Your task to perform on an android device: Open Reddit.com Image 0: 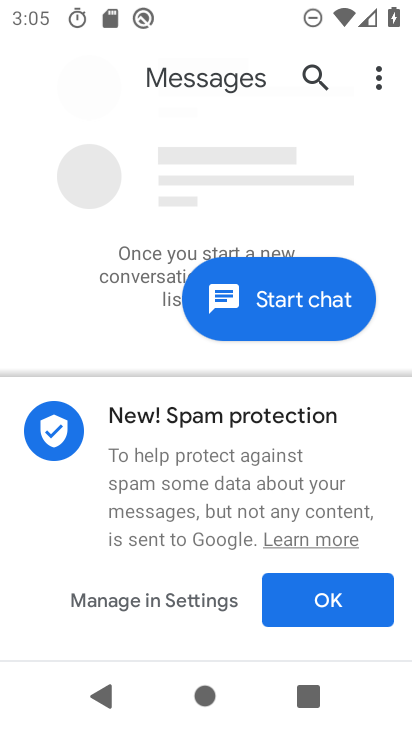
Step 0: press back button
Your task to perform on an android device: Open Reddit.com Image 1: 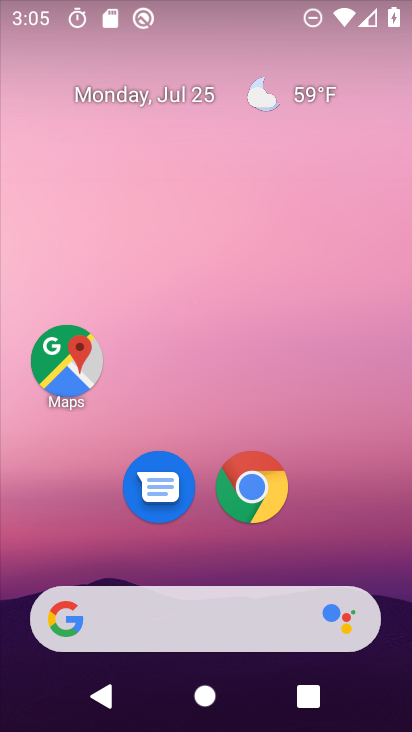
Step 1: click (248, 478)
Your task to perform on an android device: Open Reddit.com Image 2: 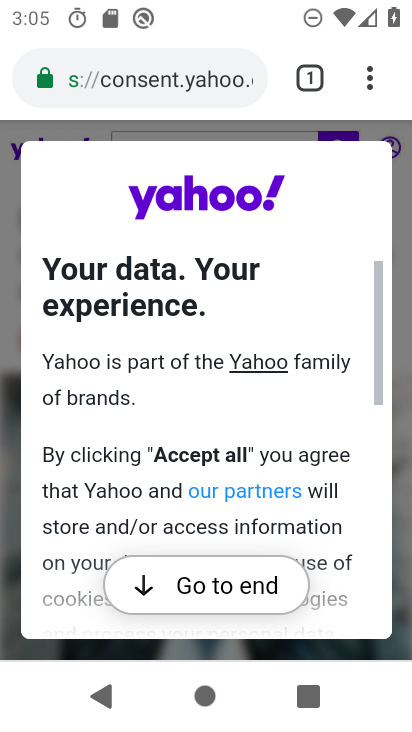
Step 2: click (300, 70)
Your task to perform on an android device: Open Reddit.com Image 3: 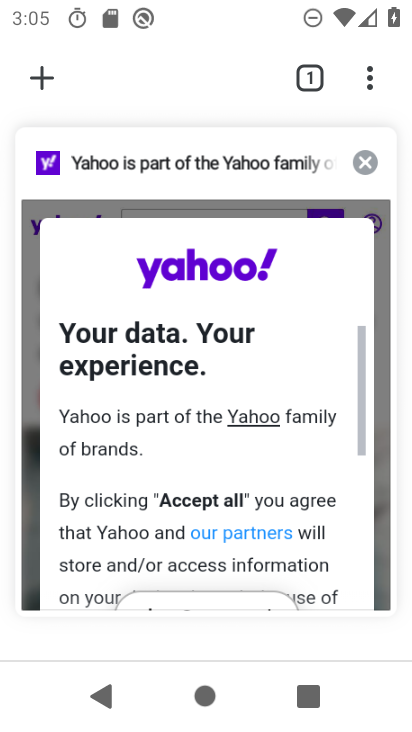
Step 3: click (52, 73)
Your task to perform on an android device: Open Reddit.com Image 4: 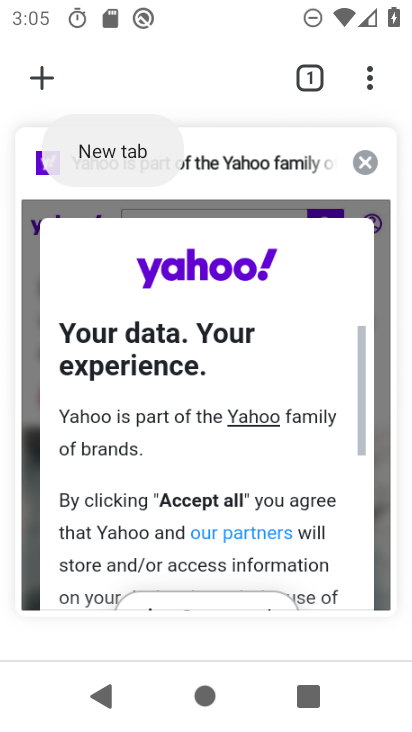
Step 4: click (49, 73)
Your task to perform on an android device: Open Reddit.com Image 5: 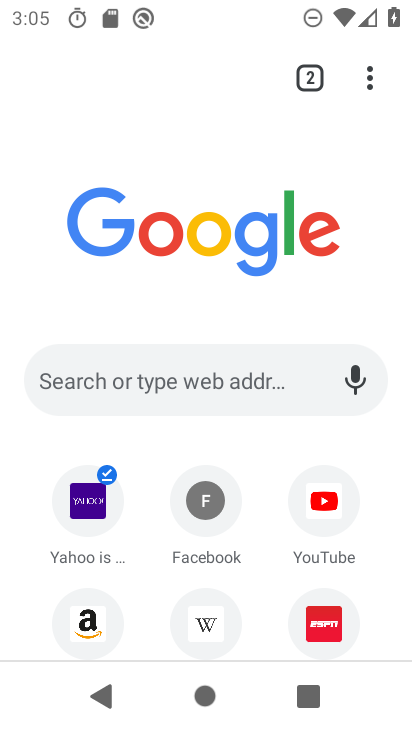
Step 5: click (122, 367)
Your task to perform on an android device: Open Reddit.com Image 6: 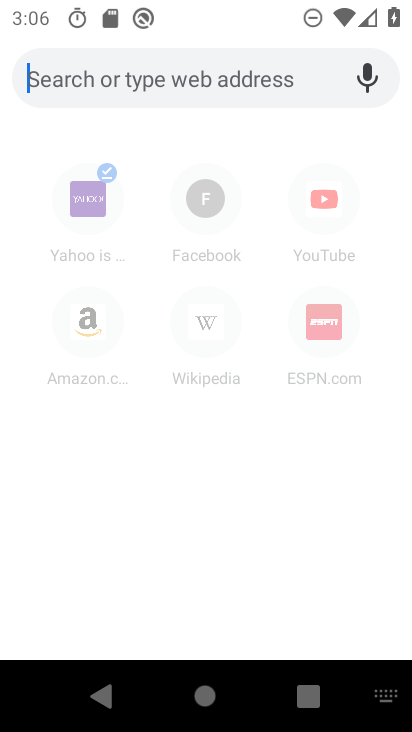
Step 6: type "reddit.com"
Your task to perform on an android device: Open Reddit.com Image 7: 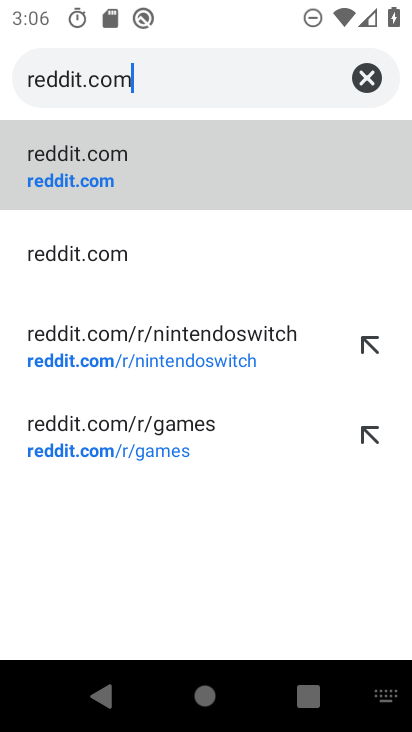
Step 7: click (110, 179)
Your task to perform on an android device: Open Reddit.com Image 8: 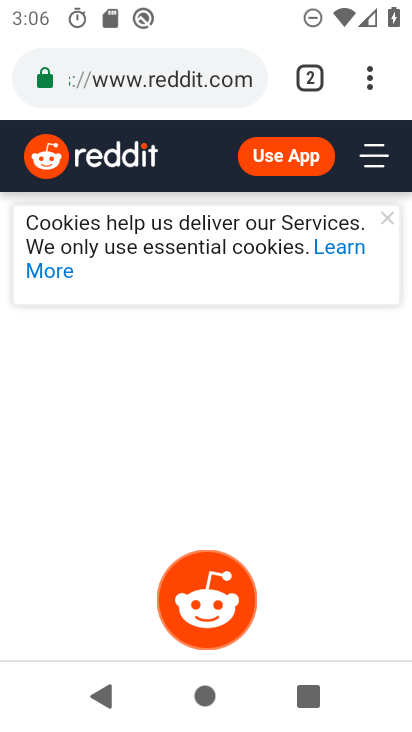
Step 8: task complete